Your task to perform on an android device: empty trash in the gmail app Image 0: 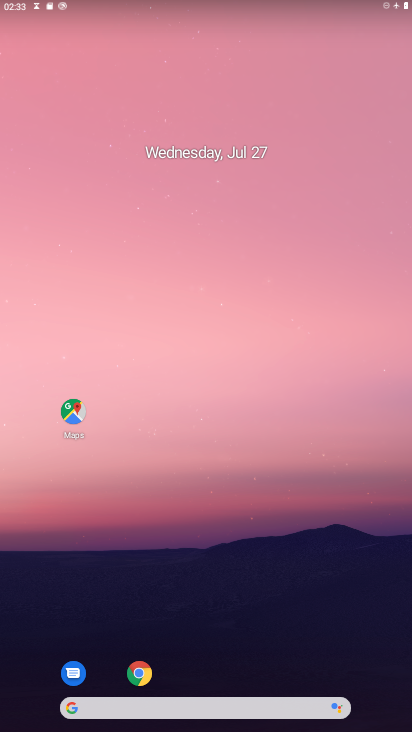
Step 0: drag from (169, 616) to (211, 98)
Your task to perform on an android device: empty trash in the gmail app Image 1: 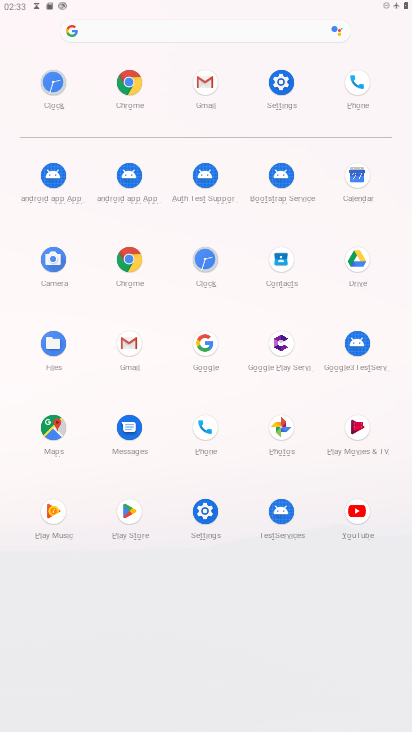
Step 1: click (118, 340)
Your task to perform on an android device: empty trash in the gmail app Image 2: 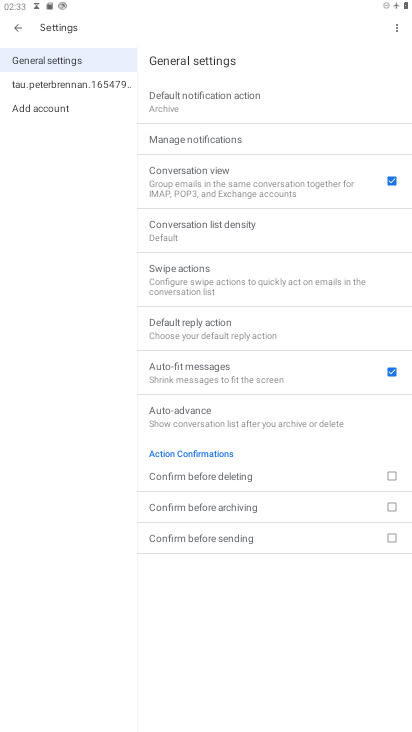
Step 2: click (18, 30)
Your task to perform on an android device: empty trash in the gmail app Image 3: 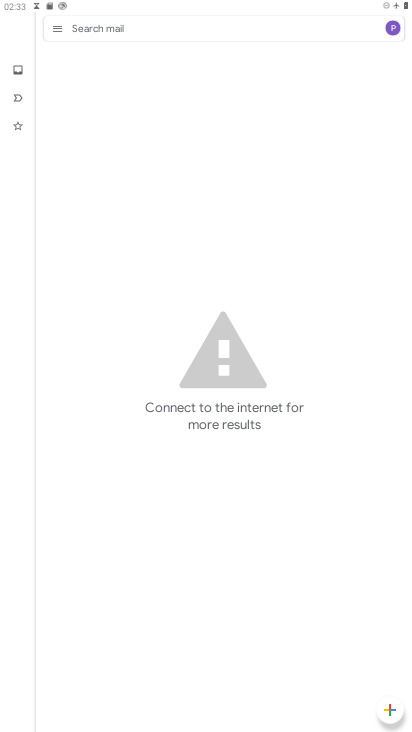
Step 3: click (63, 27)
Your task to perform on an android device: empty trash in the gmail app Image 4: 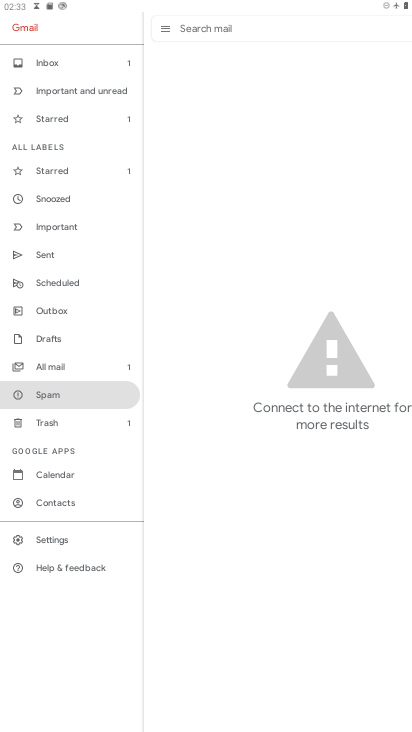
Step 4: click (55, 426)
Your task to perform on an android device: empty trash in the gmail app Image 5: 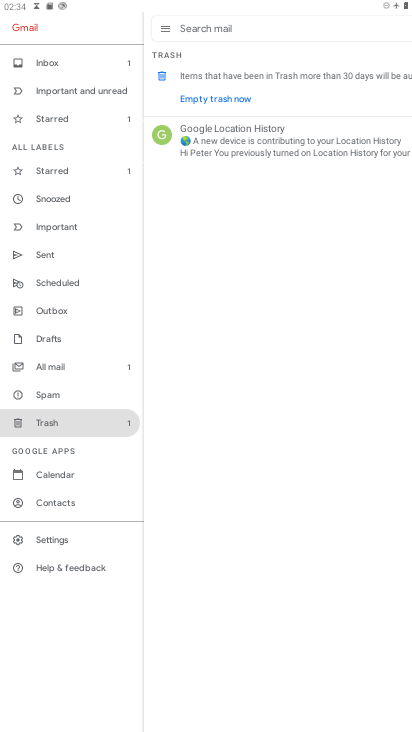
Step 5: click (206, 100)
Your task to perform on an android device: empty trash in the gmail app Image 6: 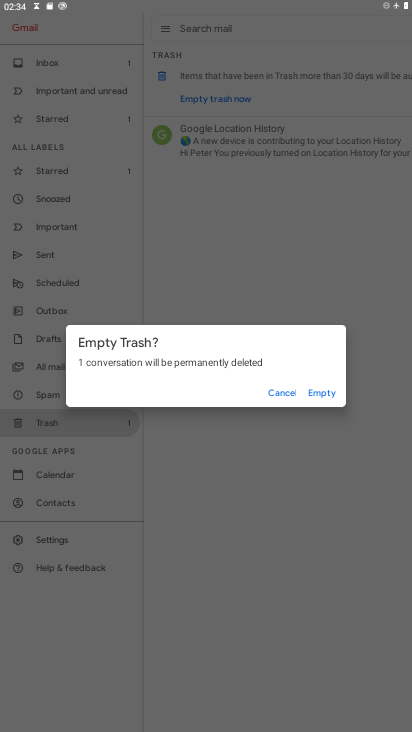
Step 6: click (317, 393)
Your task to perform on an android device: empty trash in the gmail app Image 7: 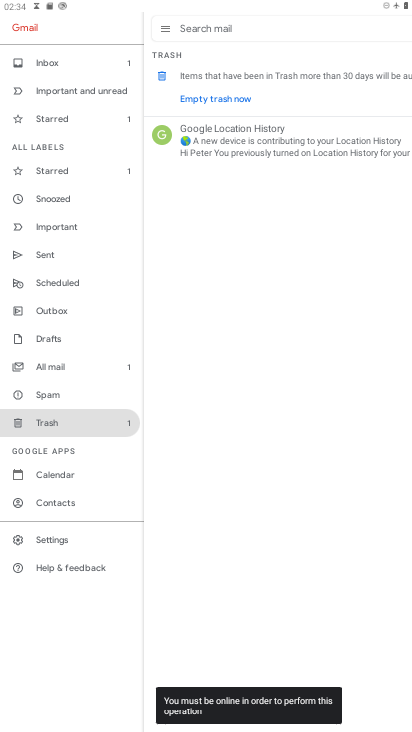
Step 7: task complete